Your task to perform on an android device: Open the stopwatch Image 0: 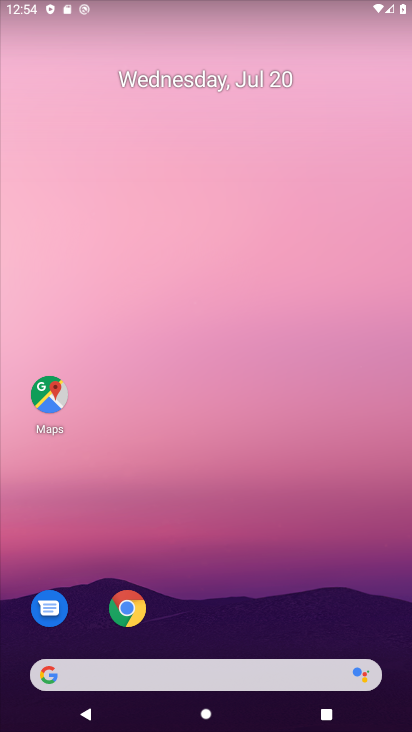
Step 0: drag from (285, 591) to (322, 0)
Your task to perform on an android device: Open the stopwatch Image 1: 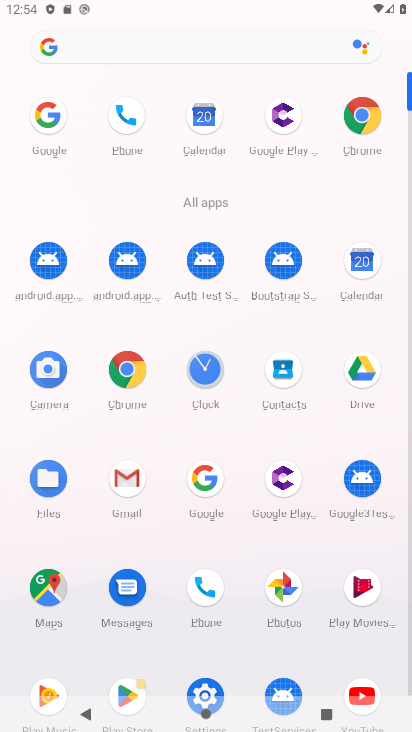
Step 1: click (200, 381)
Your task to perform on an android device: Open the stopwatch Image 2: 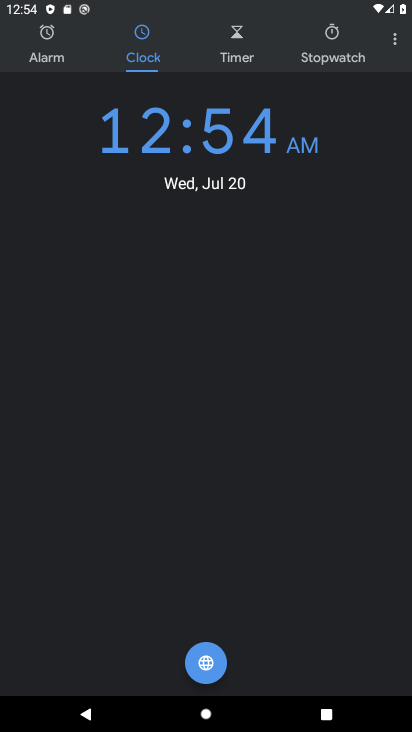
Step 2: click (327, 48)
Your task to perform on an android device: Open the stopwatch Image 3: 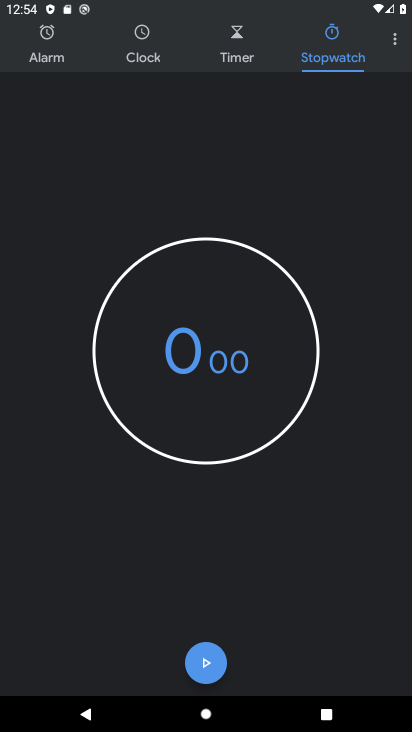
Step 3: task complete